Your task to perform on an android device: Is it going to rain this weekend? Image 0: 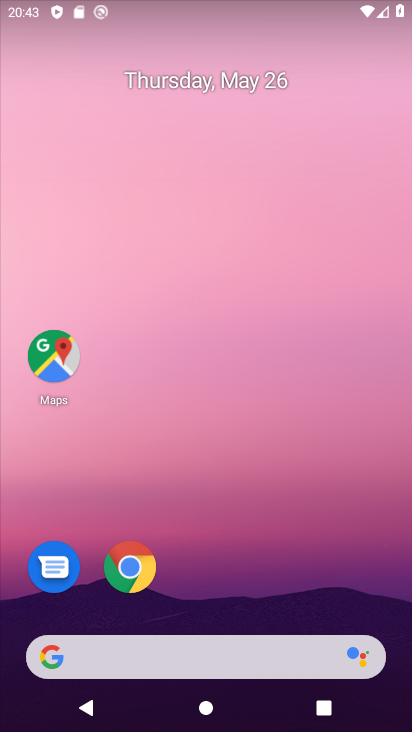
Step 0: drag from (248, 548) to (270, 56)
Your task to perform on an android device: Is it going to rain this weekend? Image 1: 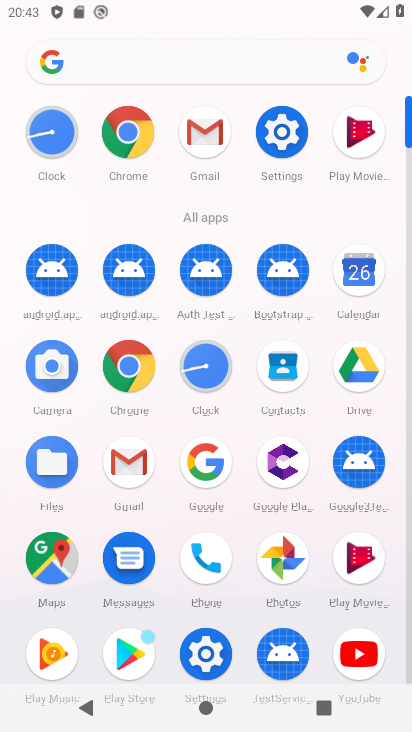
Step 1: click (209, 462)
Your task to perform on an android device: Is it going to rain this weekend? Image 2: 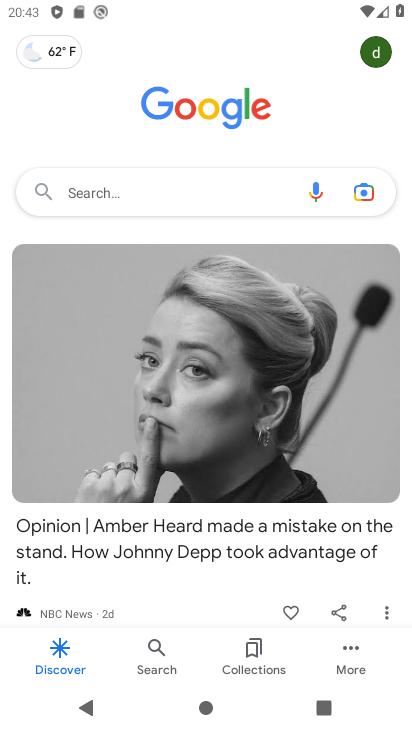
Step 2: drag from (305, 331) to (284, 564)
Your task to perform on an android device: Is it going to rain this weekend? Image 3: 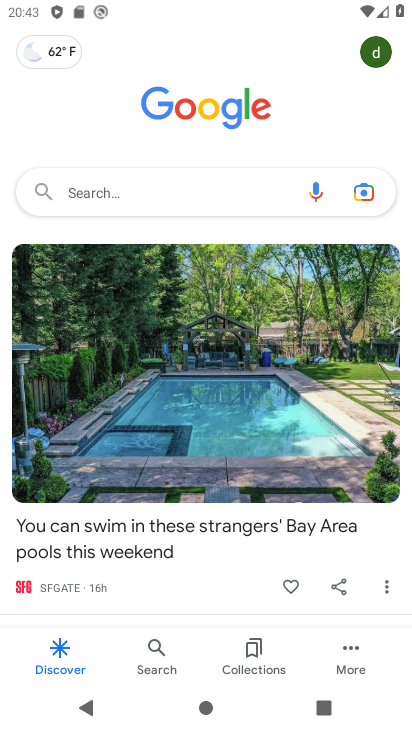
Step 3: click (53, 47)
Your task to perform on an android device: Is it going to rain this weekend? Image 4: 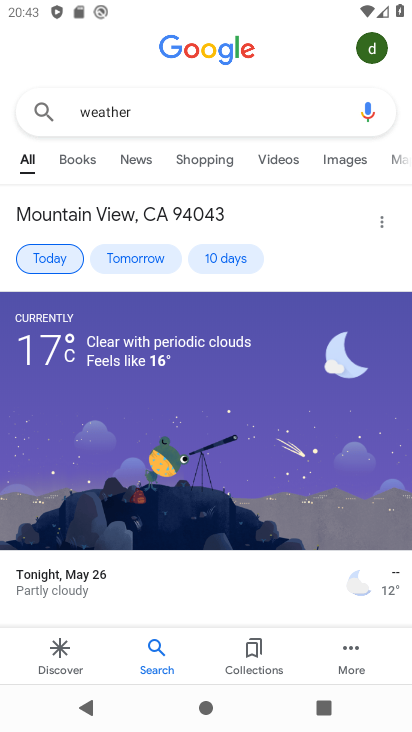
Step 4: click (213, 259)
Your task to perform on an android device: Is it going to rain this weekend? Image 5: 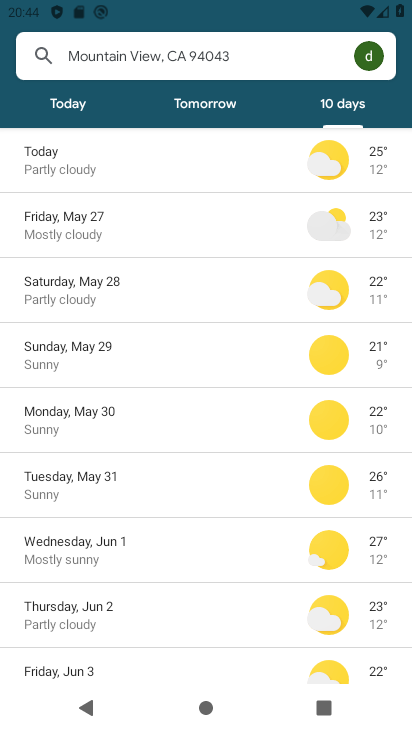
Step 5: task complete